Your task to perform on an android device: Search for pizza restaurants on Maps Image 0: 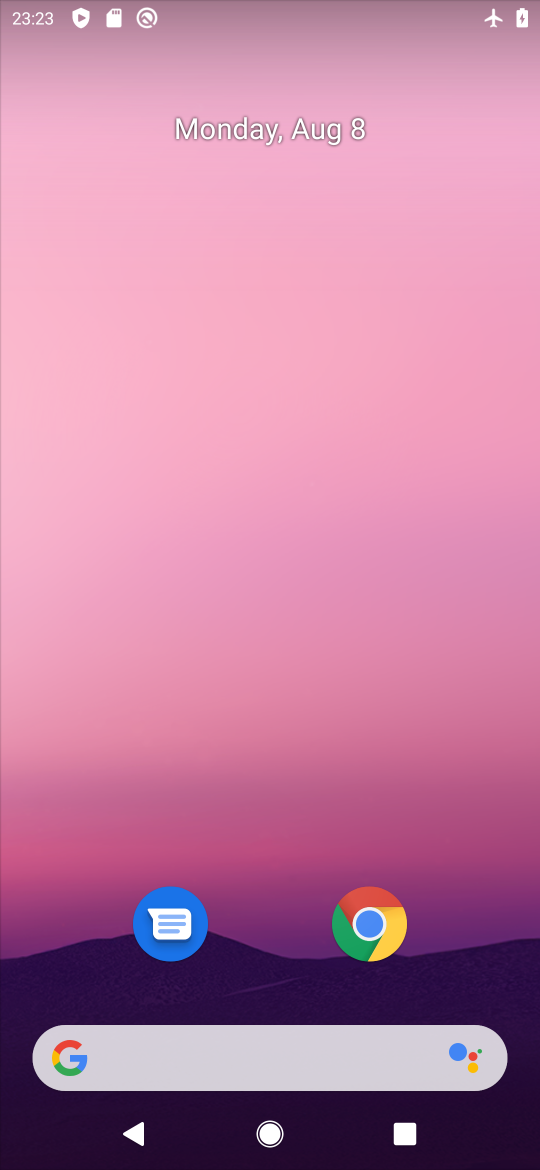
Step 0: drag from (258, 982) to (135, 137)
Your task to perform on an android device: Search for pizza restaurants on Maps Image 1: 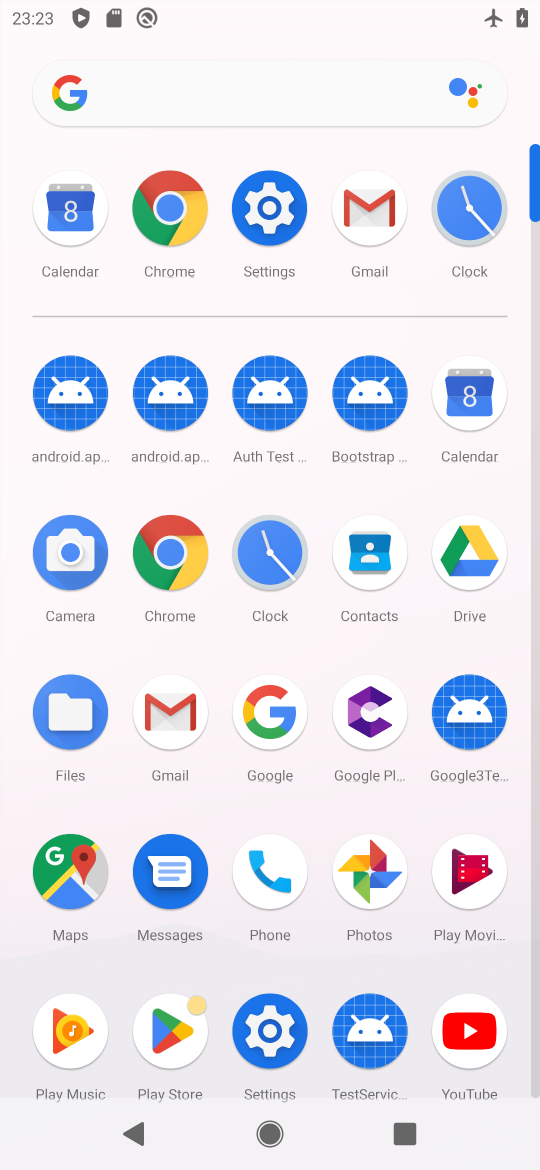
Step 1: click (89, 848)
Your task to perform on an android device: Search for pizza restaurants on Maps Image 2: 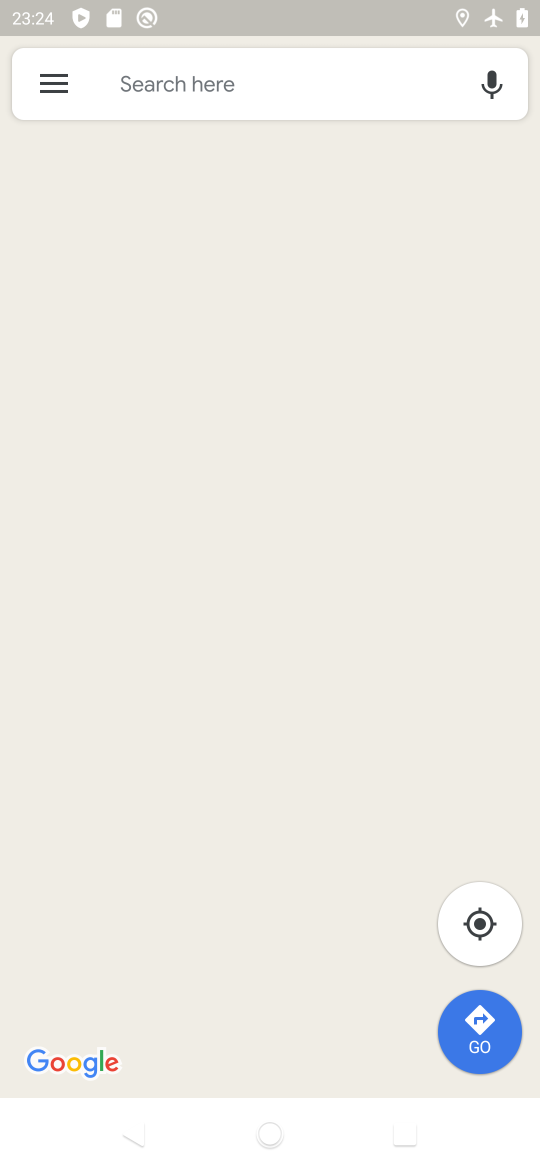
Step 2: click (180, 99)
Your task to perform on an android device: Search for pizza restaurants on Maps Image 3: 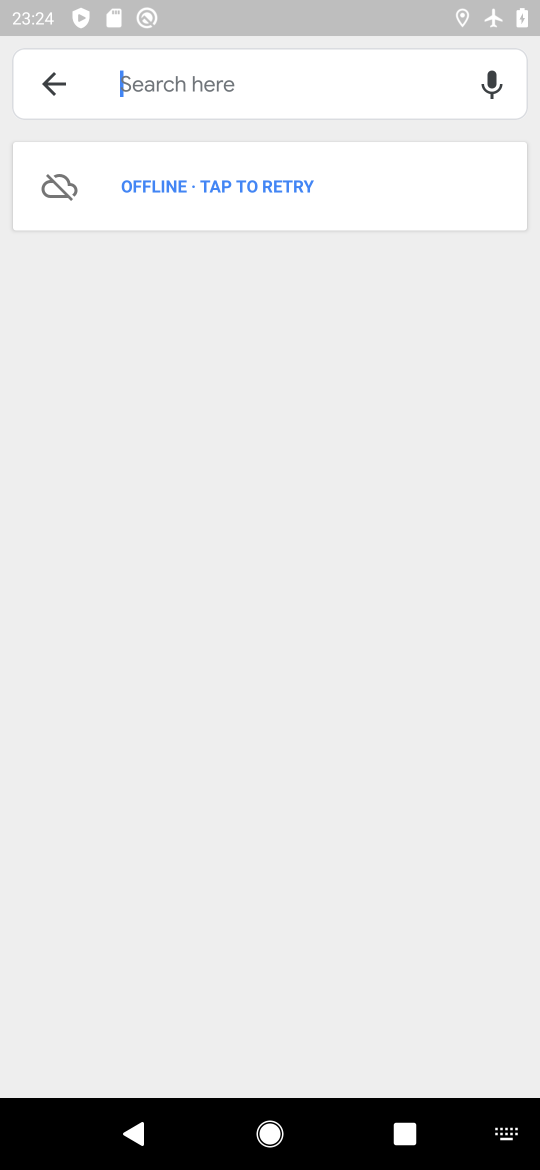
Step 3: click (166, 174)
Your task to perform on an android device: Search for pizza restaurants on Maps Image 4: 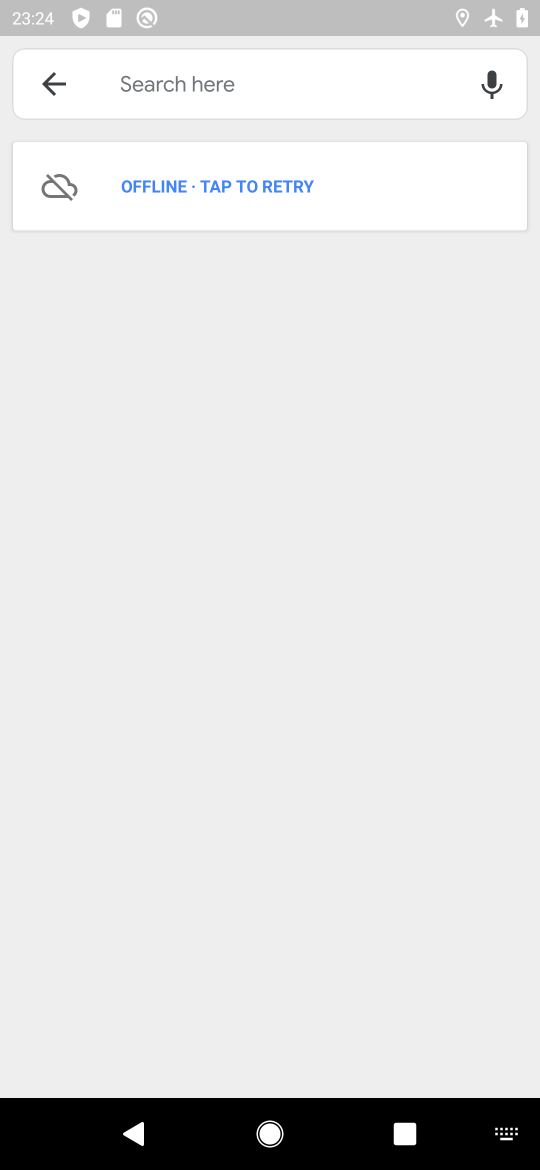
Step 4: task complete